Your task to perform on an android device: find photos in the google photos app Image 0: 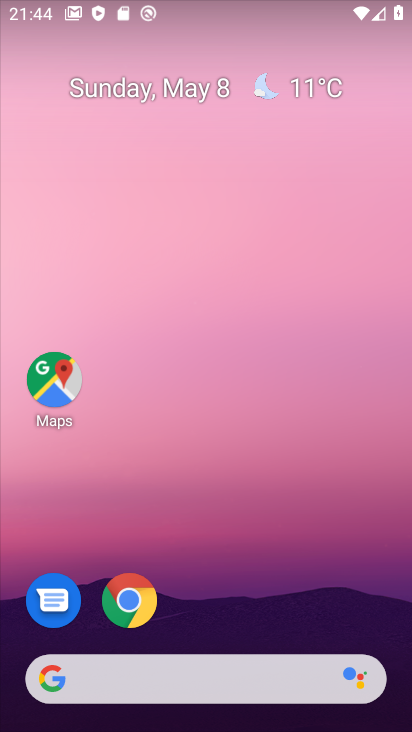
Step 0: drag from (212, 624) to (400, 38)
Your task to perform on an android device: find photos in the google photos app Image 1: 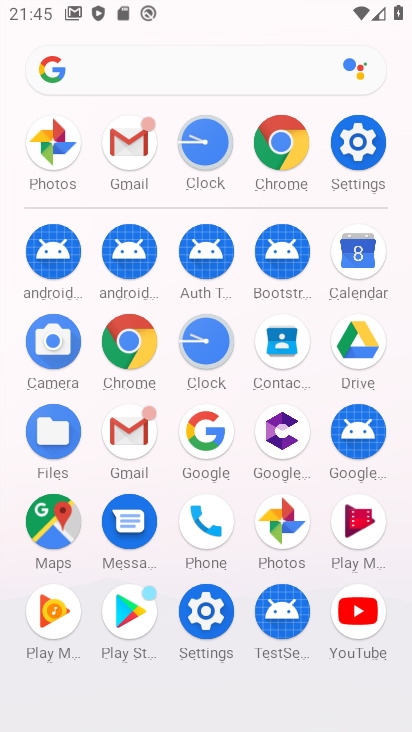
Step 1: click (55, 152)
Your task to perform on an android device: find photos in the google photos app Image 2: 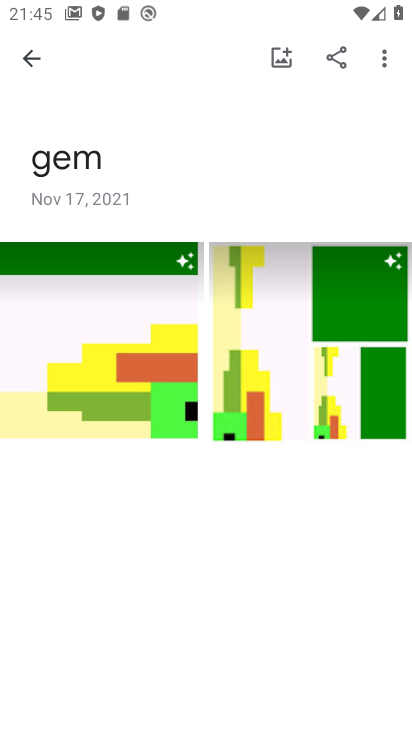
Step 2: task complete